Your task to perform on an android device: Go to network settings Image 0: 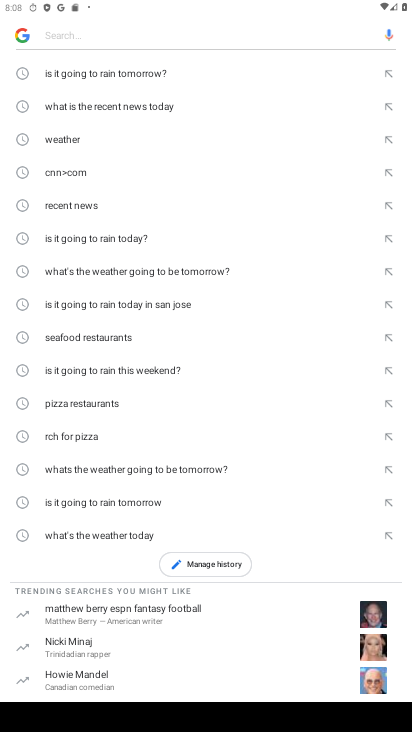
Step 0: press back button
Your task to perform on an android device: Go to network settings Image 1: 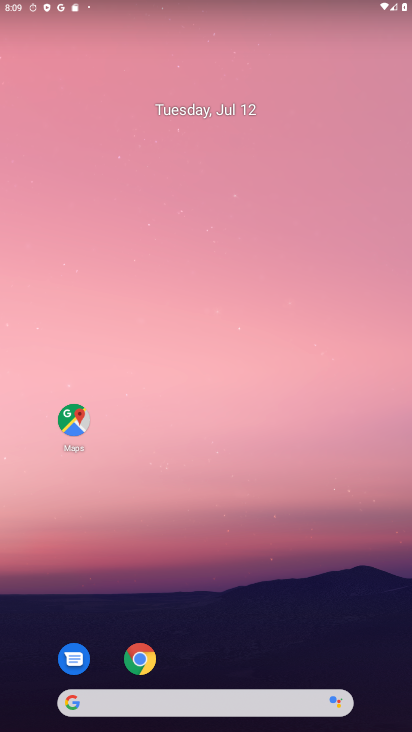
Step 1: drag from (245, 692) to (144, 220)
Your task to perform on an android device: Go to network settings Image 2: 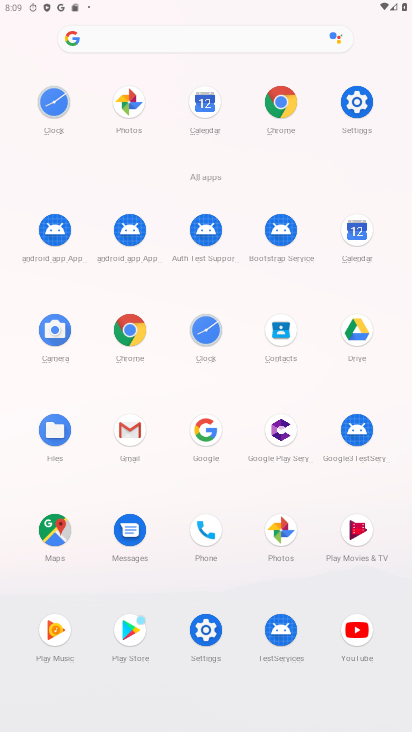
Step 2: click (364, 101)
Your task to perform on an android device: Go to network settings Image 3: 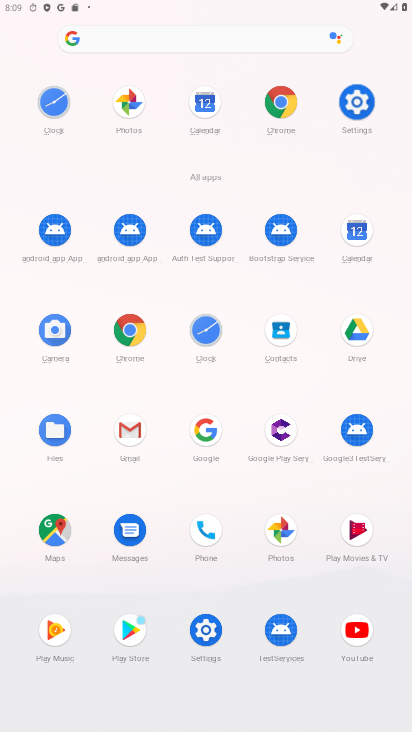
Step 3: click (364, 101)
Your task to perform on an android device: Go to network settings Image 4: 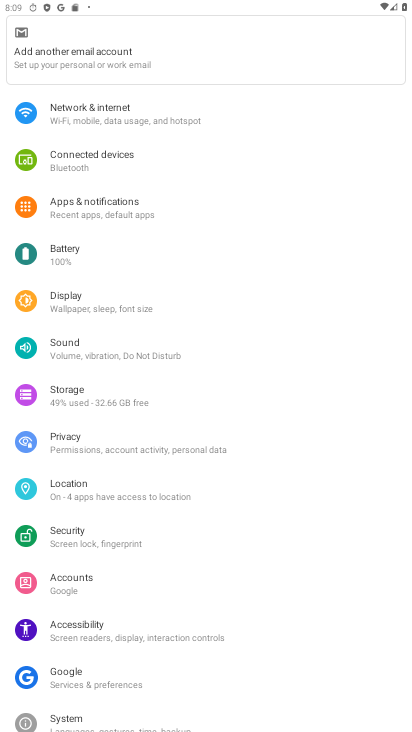
Step 4: click (105, 122)
Your task to perform on an android device: Go to network settings Image 5: 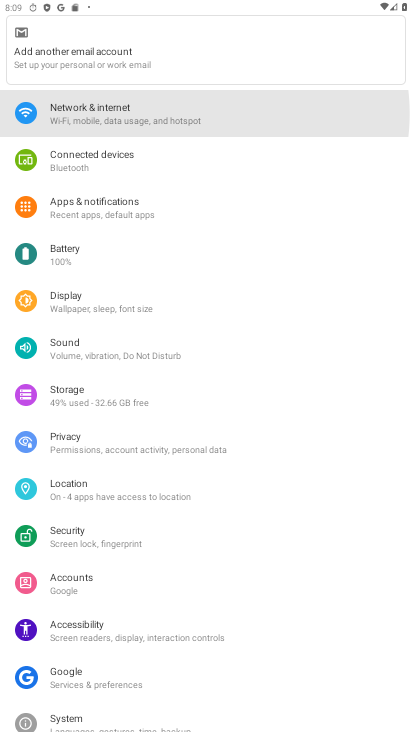
Step 5: click (105, 122)
Your task to perform on an android device: Go to network settings Image 6: 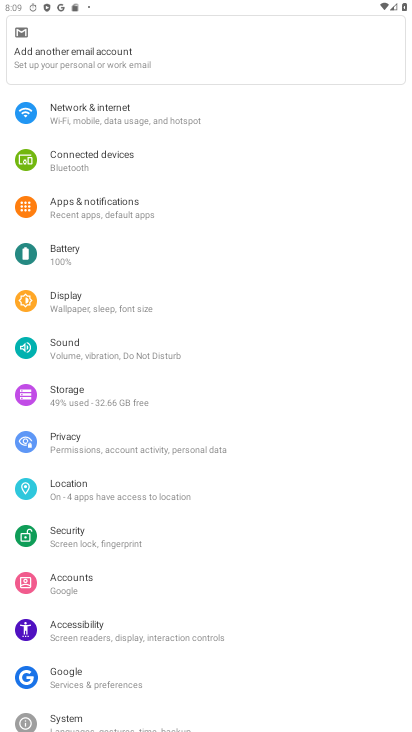
Step 6: click (105, 122)
Your task to perform on an android device: Go to network settings Image 7: 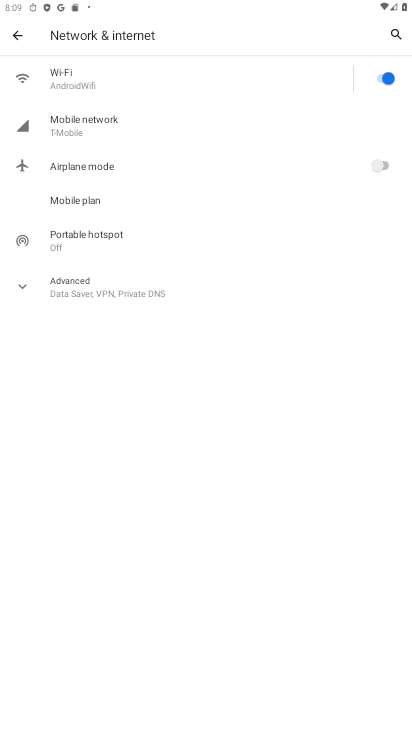
Step 7: task complete